Your task to perform on an android device: Open calendar and show me the first week of next month Image 0: 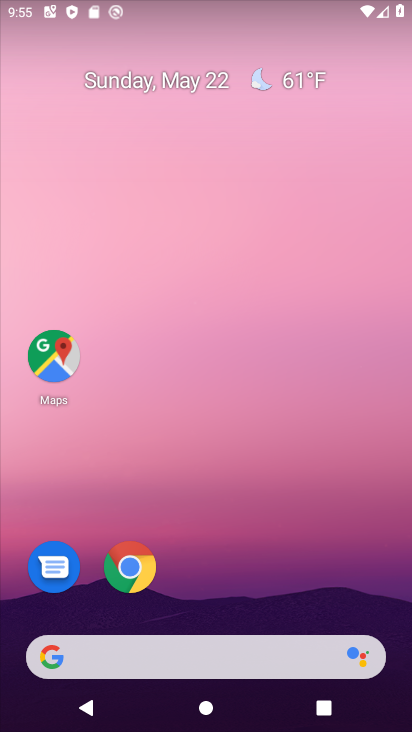
Step 0: drag from (208, 620) to (242, 16)
Your task to perform on an android device: Open calendar and show me the first week of next month Image 1: 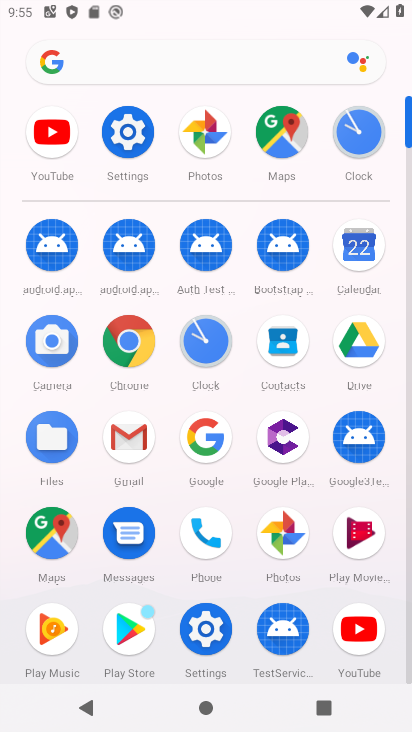
Step 1: click (349, 258)
Your task to perform on an android device: Open calendar and show me the first week of next month Image 2: 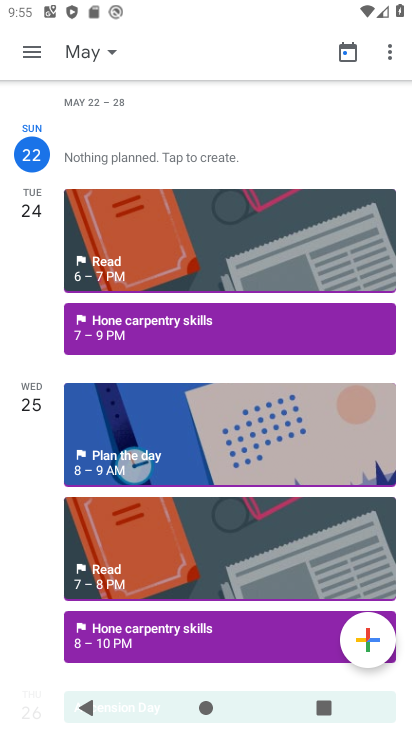
Step 2: click (32, 51)
Your task to perform on an android device: Open calendar and show me the first week of next month Image 3: 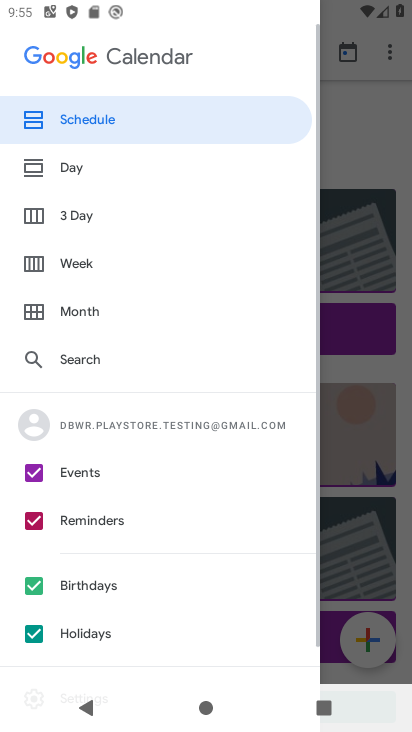
Step 3: click (87, 257)
Your task to perform on an android device: Open calendar and show me the first week of next month Image 4: 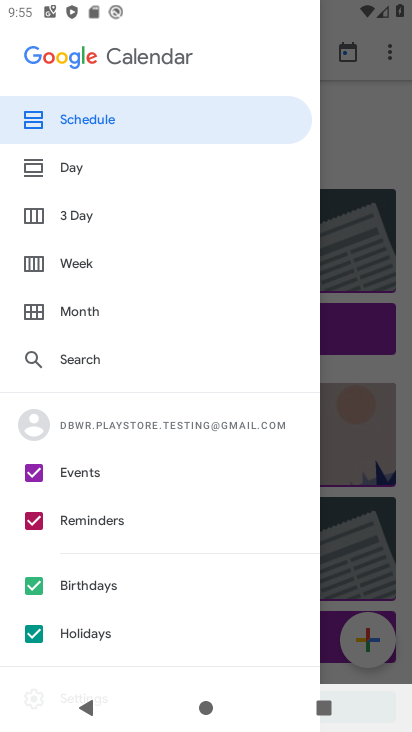
Step 4: click (58, 261)
Your task to perform on an android device: Open calendar and show me the first week of next month Image 5: 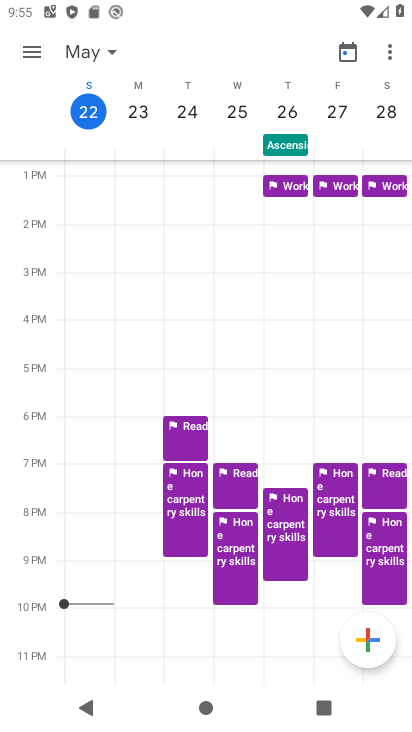
Step 5: task complete